Your task to perform on an android device: Set the phone to "Do not disturb". Image 0: 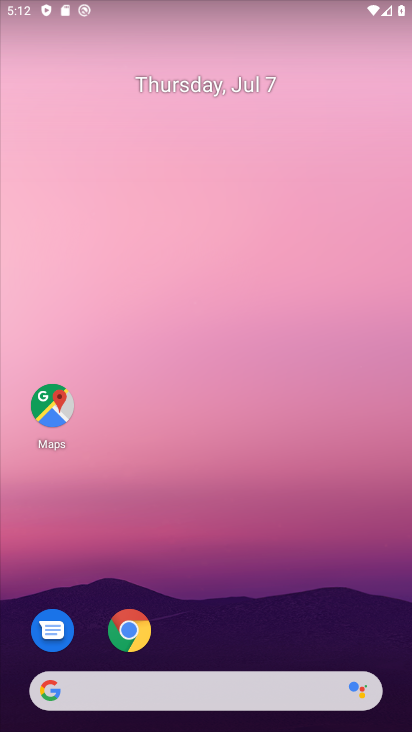
Step 0: drag from (223, 206) to (190, 389)
Your task to perform on an android device: Set the phone to "Do not disturb". Image 1: 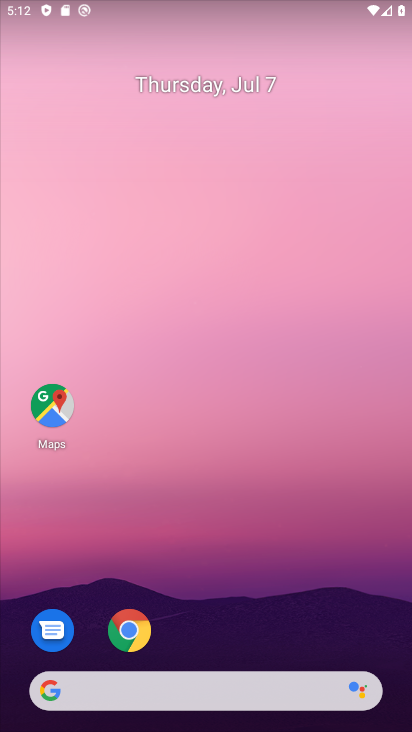
Step 1: drag from (220, 28) to (279, 427)
Your task to perform on an android device: Set the phone to "Do not disturb". Image 2: 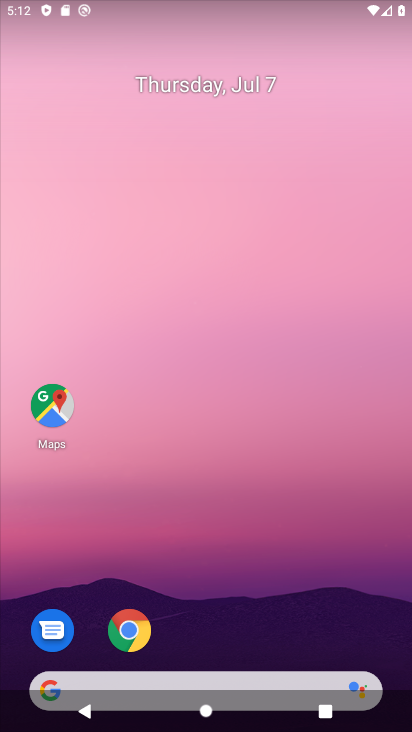
Step 2: drag from (217, 40) to (213, 456)
Your task to perform on an android device: Set the phone to "Do not disturb". Image 3: 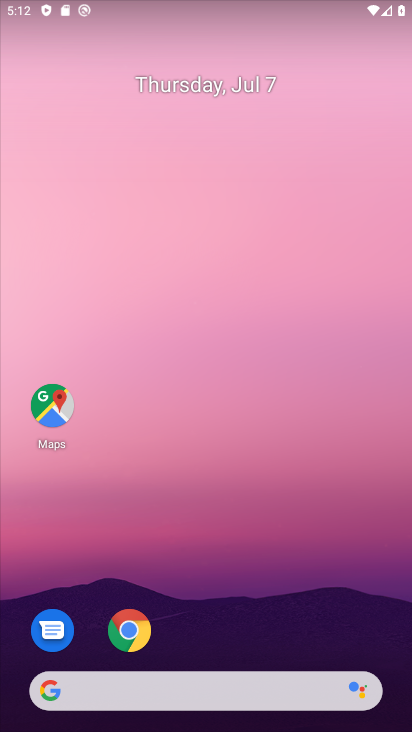
Step 3: drag from (202, 52) to (225, 545)
Your task to perform on an android device: Set the phone to "Do not disturb". Image 4: 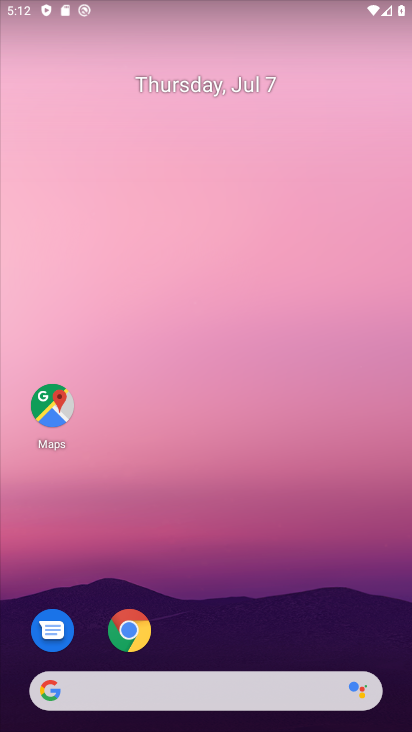
Step 4: drag from (183, 12) to (229, 550)
Your task to perform on an android device: Set the phone to "Do not disturb". Image 5: 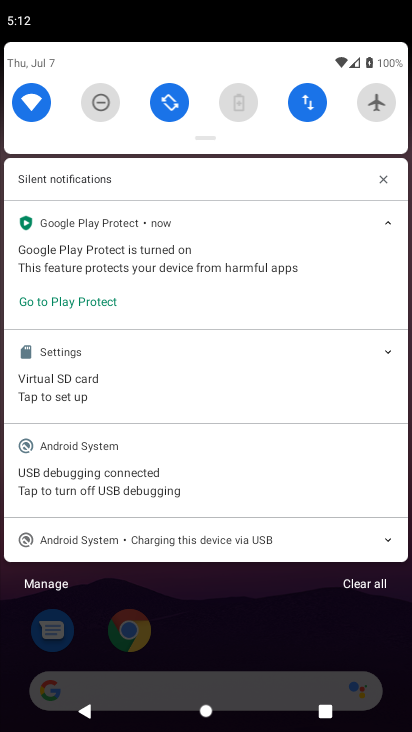
Step 5: click (93, 103)
Your task to perform on an android device: Set the phone to "Do not disturb". Image 6: 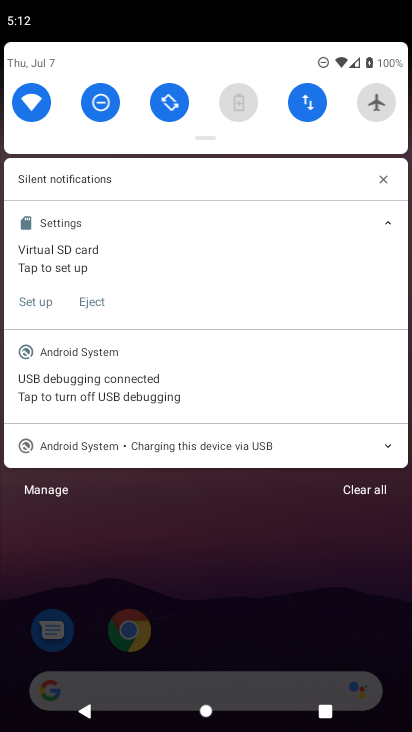
Step 6: task complete